Your task to perform on an android device: see sites visited before in the chrome app Image 0: 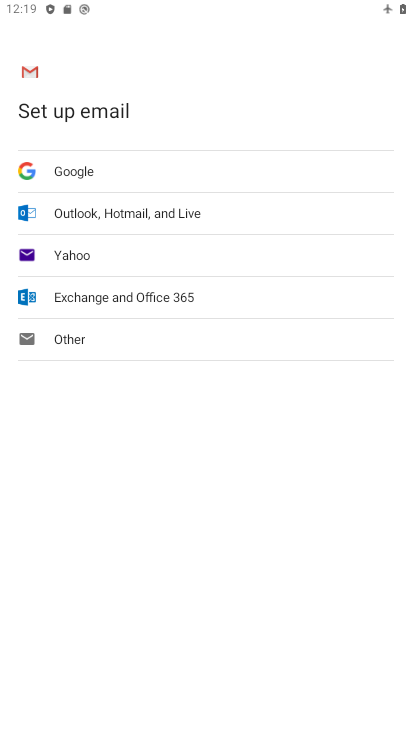
Step 0: press home button
Your task to perform on an android device: see sites visited before in the chrome app Image 1: 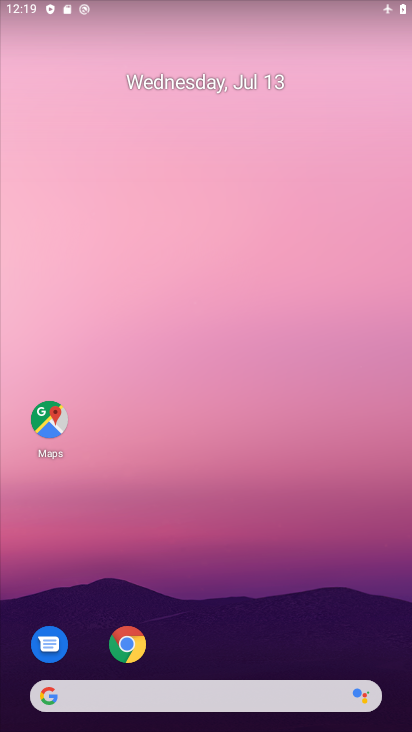
Step 1: drag from (282, 623) to (301, 119)
Your task to perform on an android device: see sites visited before in the chrome app Image 2: 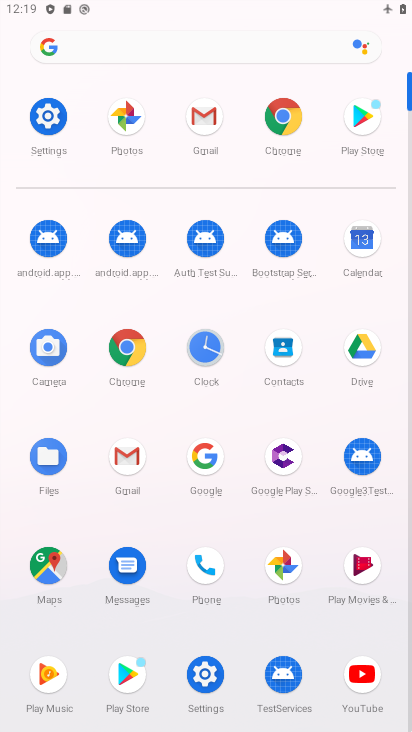
Step 2: click (279, 120)
Your task to perform on an android device: see sites visited before in the chrome app Image 3: 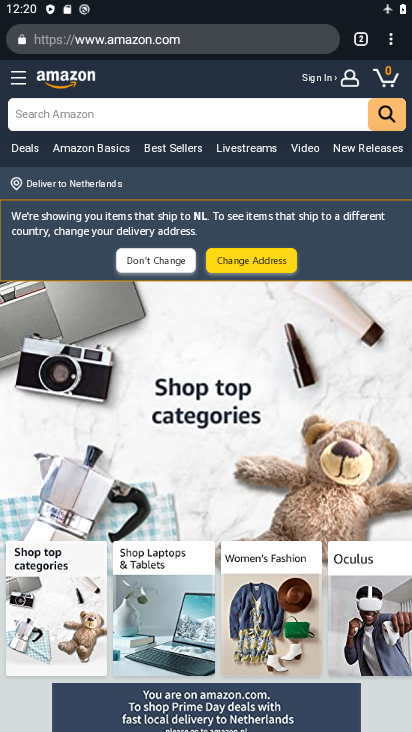
Step 3: task complete